Your task to perform on an android device: toggle improve location accuracy Image 0: 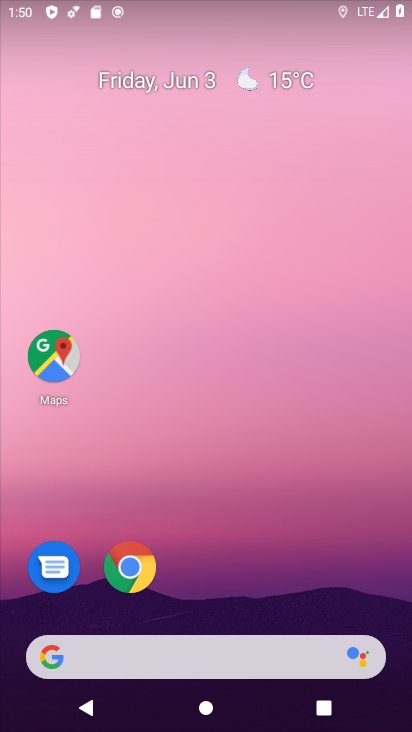
Step 0: drag from (138, 631) to (267, 128)
Your task to perform on an android device: toggle improve location accuracy Image 1: 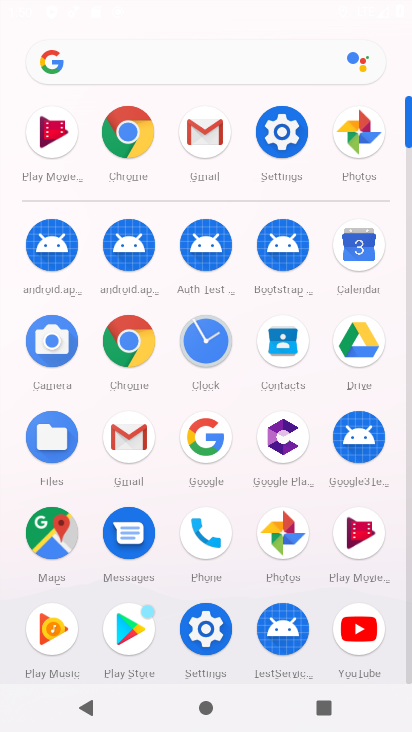
Step 1: click (279, 138)
Your task to perform on an android device: toggle improve location accuracy Image 2: 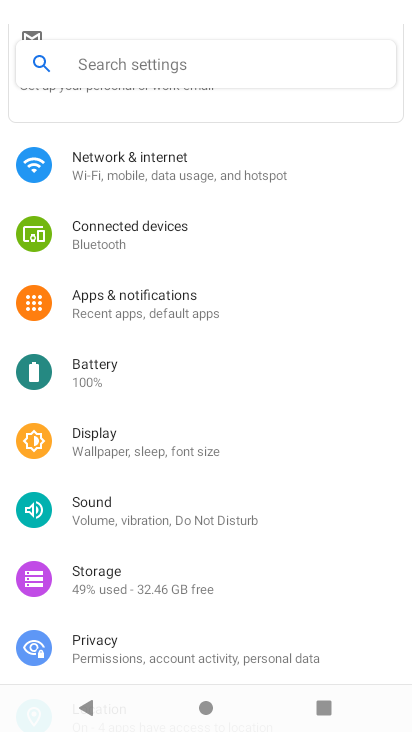
Step 2: click (115, 606)
Your task to perform on an android device: toggle improve location accuracy Image 3: 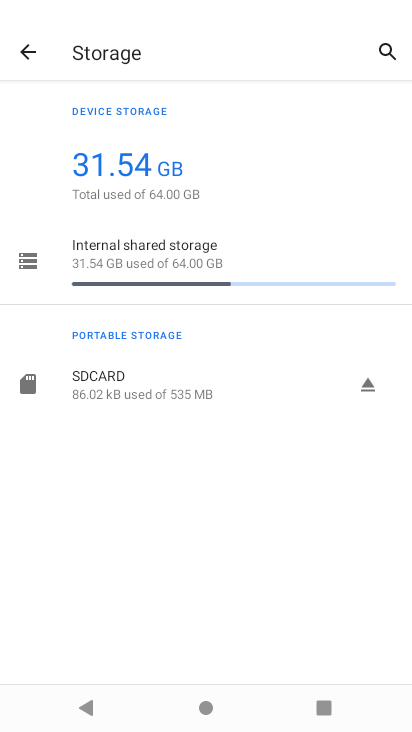
Step 3: click (26, 53)
Your task to perform on an android device: toggle improve location accuracy Image 4: 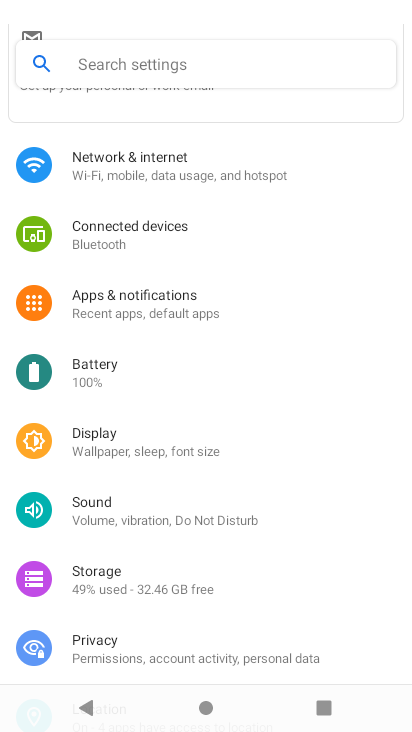
Step 4: drag from (101, 636) to (183, 269)
Your task to perform on an android device: toggle improve location accuracy Image 5: 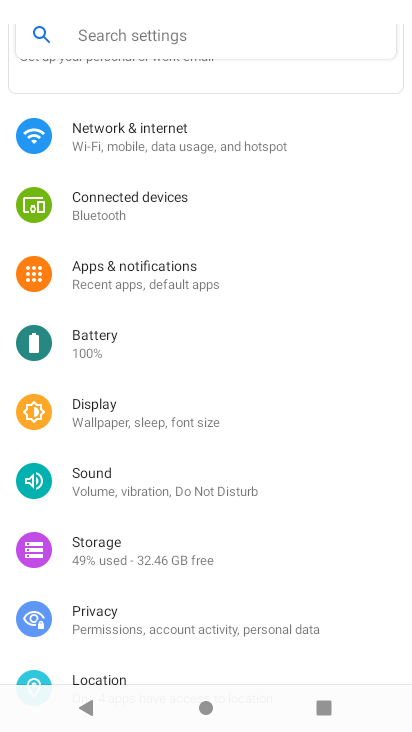
Step 5: click (117, 677)
Your task to perform on an android device: toggle improve location accuracy Image 6: 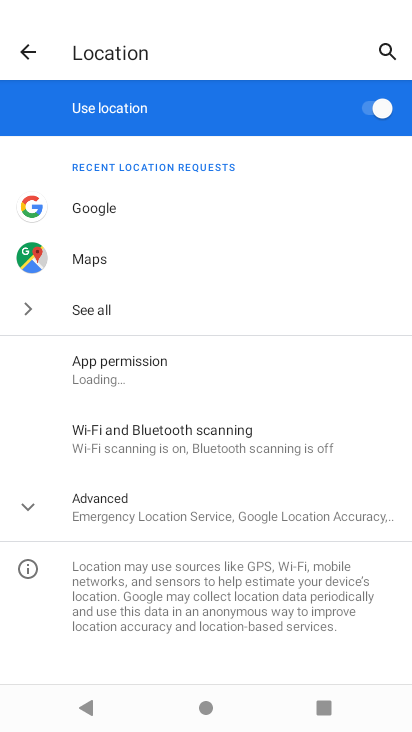
Step 6: click (118, 506)
Your task to perform on an android device: toggle improve location accuracy Image 7: 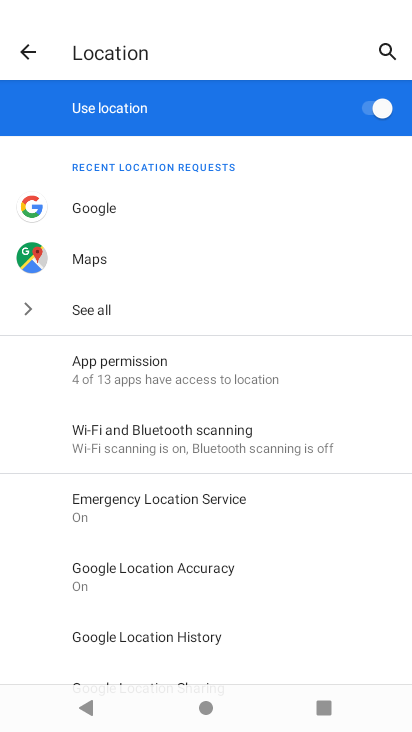
Step 7: click (141, 565)
Your task to perform on an android device: toggle improve location accuracy Image 8: 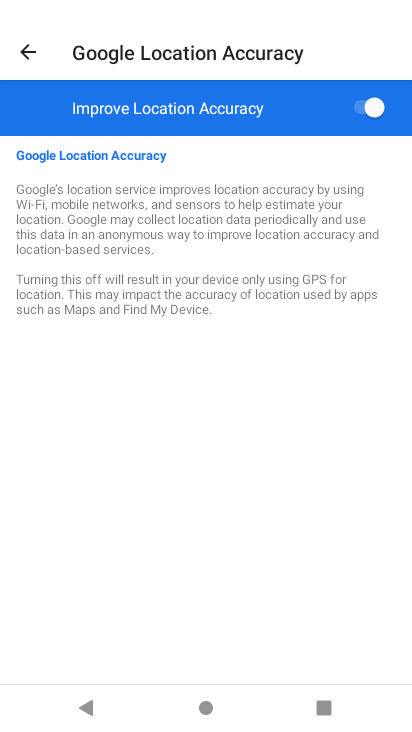
Step 8: task complete